Your task to perform on an android device: change the clock display to analog Image 0: 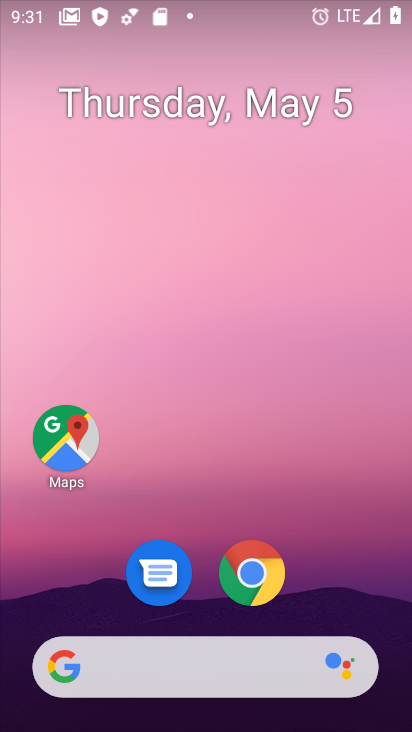
Step 0: drag from (222, 352) to (254, 43)
Your task to perform on an android device: change the clock display to analog Image 1: 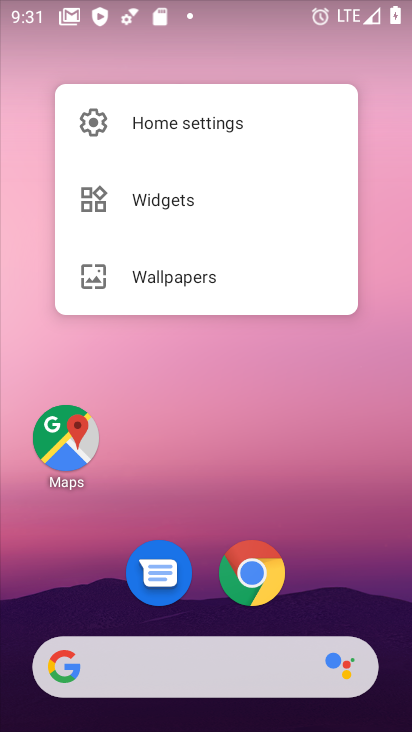
Step 1: click (184, 613)
Your task to perform on an android device: change the clock display to analog Image 2: 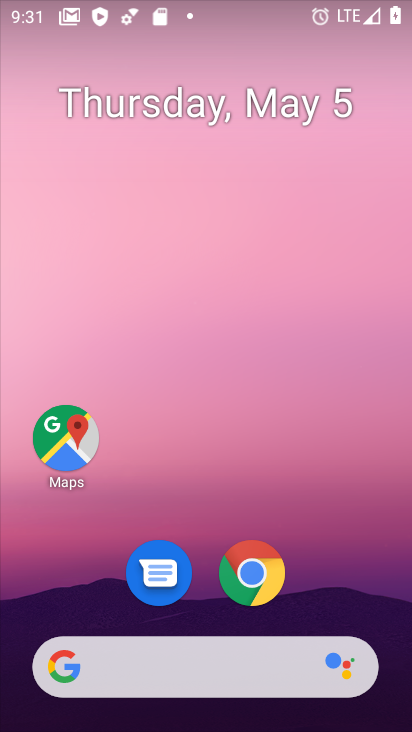
Step 2: drag from (199, 615) to (260, 7)
Your task to perform on an android device: change the clock display to analog Image 3: 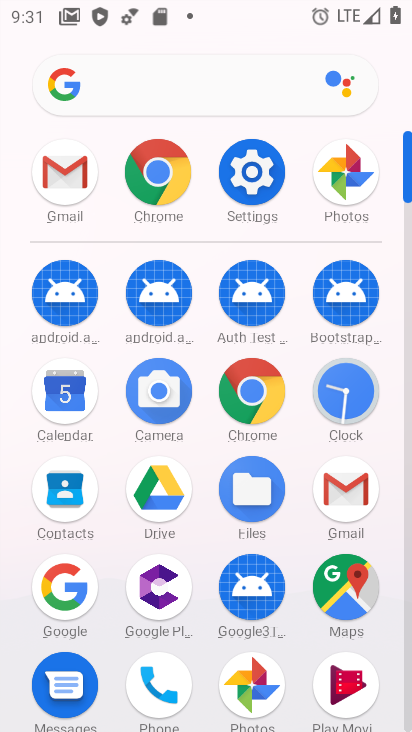
Step 3: click (336, 378)
Your task to perform on an android device: change the clock display to analog Image 4: 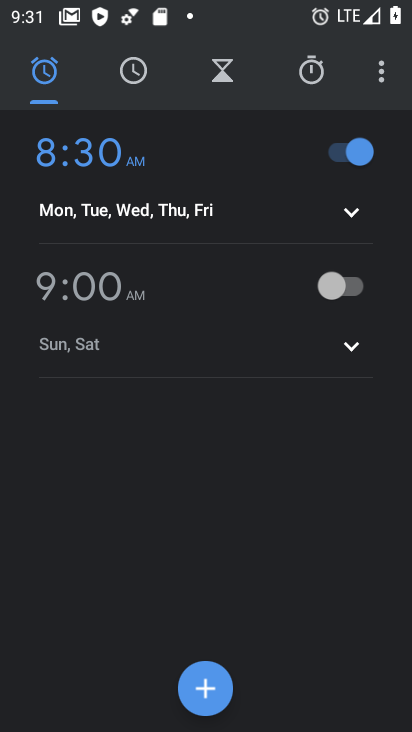
Step 4: click (372, 65)
Your task to perform on an android device: change the clock display to analog Image 5: 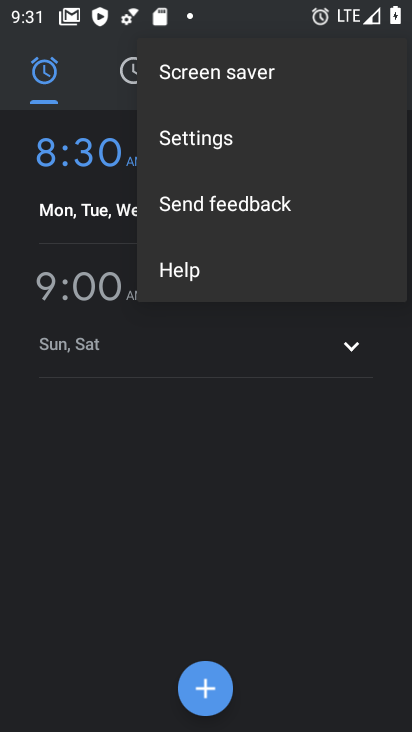
Step 5: click (190, 137)
Your task to perform on an android device: change the clock display to analog Image 6: 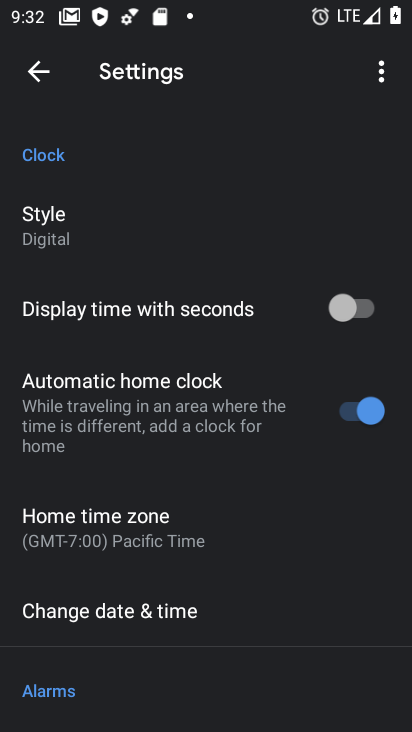
Step 6: click (77, 219)
Your task to perform on an android device: change the clock display to analog Image 7: 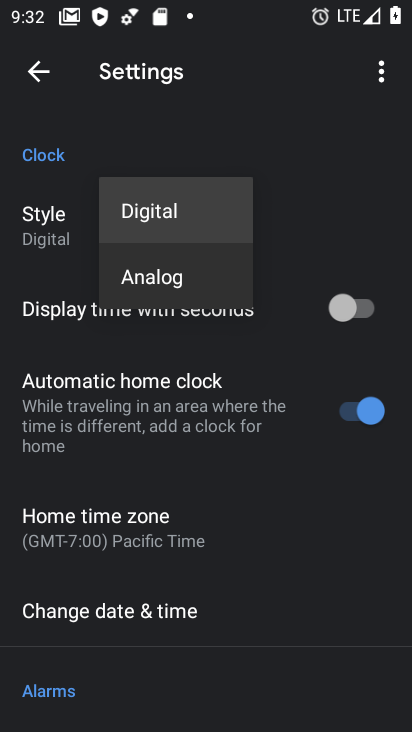
Step 7: click (154, 289)
Your task to perform on an android device: change the clock display to analog Image 8: 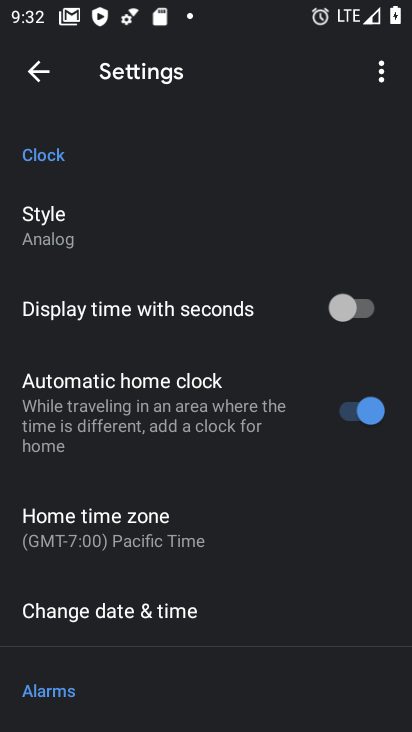
Step 8: task complete